Your task to perform on an android device: Open ESPN.com Image 0: 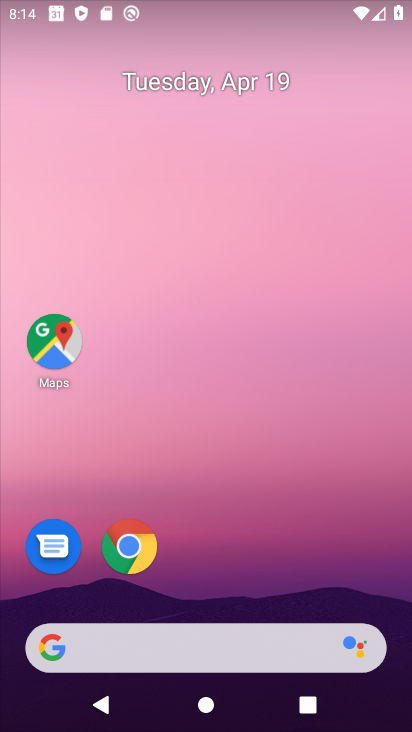
Step 0: click (123, 539)
Your task to perform on an android device: Open ESPN.com Image 1: 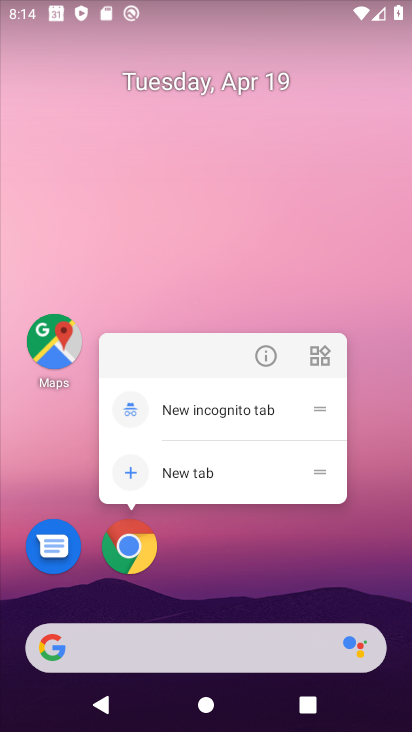
Step 1: click (132, 545)
Your task to perform on an android device: Open ESPN.com Image 2: 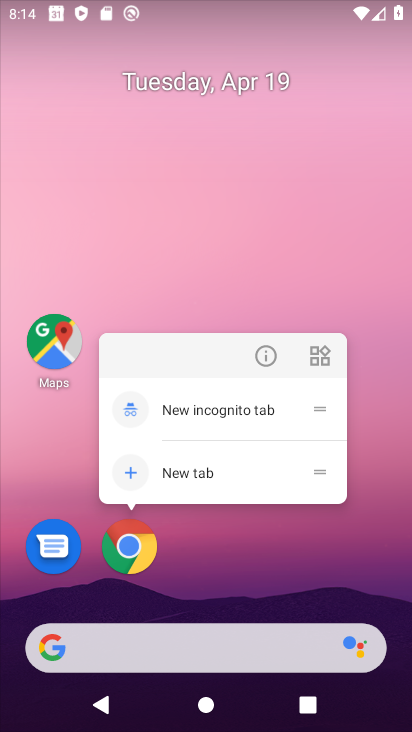
Step 2: click (131, 538)
Your task to perform on an android device: Open ESPN.com Image 3: 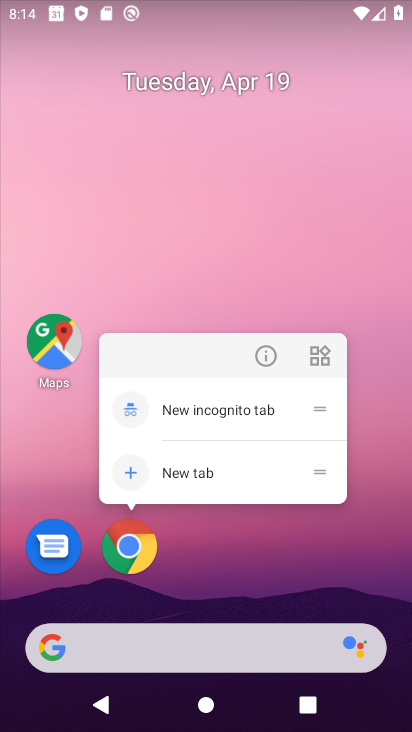
Step 3: click (365, 215)
Your task to perform on an android device: Open ESPN.com Image 4: 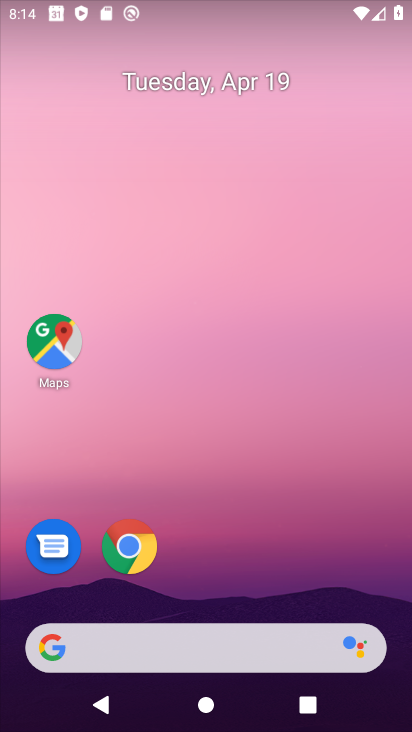
Step 4: click (119, 553)
Your task to perform on an android device: Open ESPN.com Image 5: 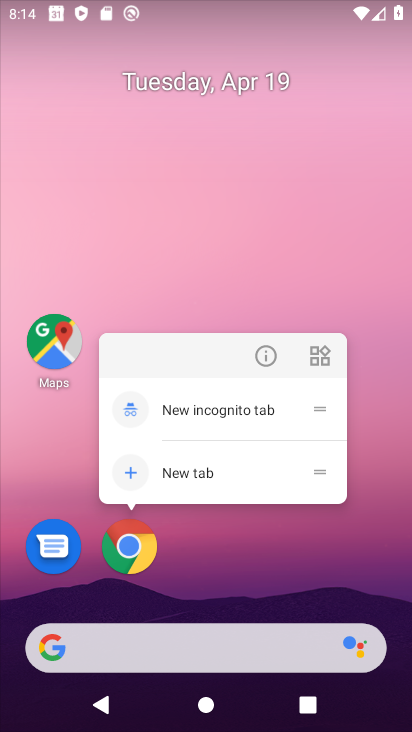
Step 5: click (123, 540)
Your task to perform on an android device: Open ESPN.com Image 6: 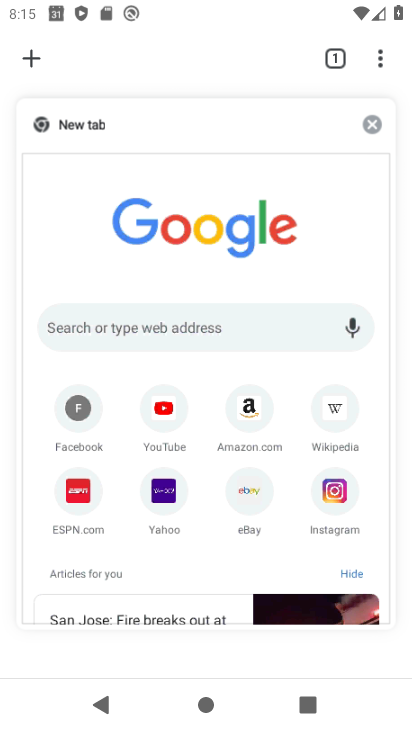
Step 6: click (73, 490)
Your task to perform on an android device: Open ESPN.com Image 7: 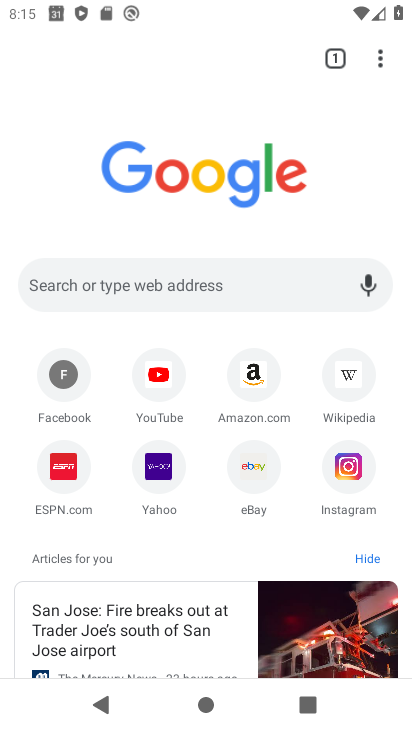
Step 7: click (67, 462)
Your task to perform on an android device: Open ESPN.com Image 8: 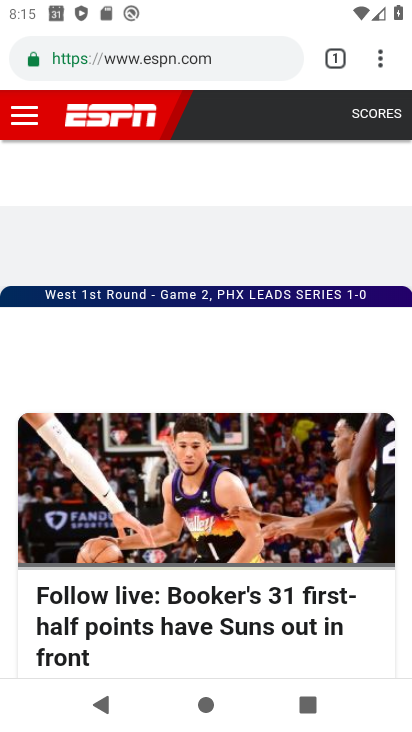
Step 8: task complete